Your task to perform on an android device: open app "Adobe Express: Graphic Design" (install if not already installed) and go to login screen Image 0: 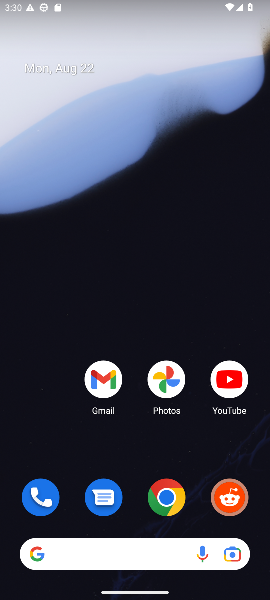
Step 0: drag from (150, 450) to (161, 73)
Your task to perform on an android device: open app "Adobe Express: Graphic Design" (install if not already installed) and go to login screen Image 1: 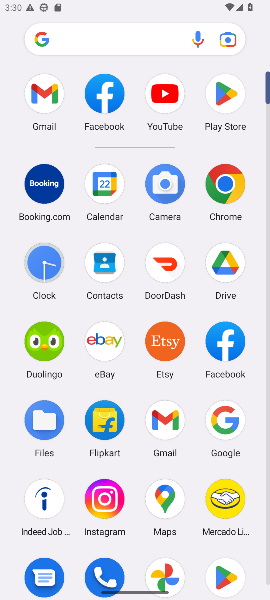
Step 1: click (212, 90)
Your task to perform on an android device: open app "Adobe Express: Graphic Design" (install if not already installed) and go to login screen Image 2: 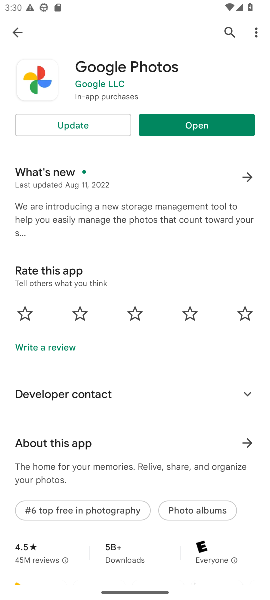
Step 2: click (227, 26)
Your task to perform on an android device: open app "Adobe Express: Graphic Design" (install if not already installed) and go to login screen Image 3: 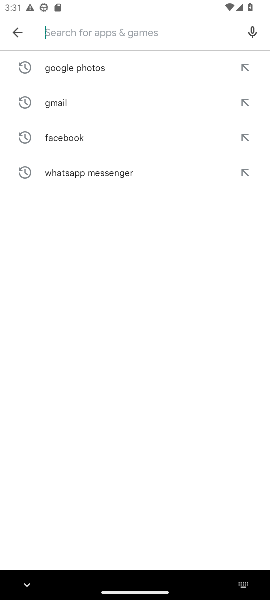
Step 3: type "Adobe Express: Graphic Design"
Your task to perform on an android device: open app "Adobe Express: Graphic Design" (install if not already installed) and go to login screen Image 4: 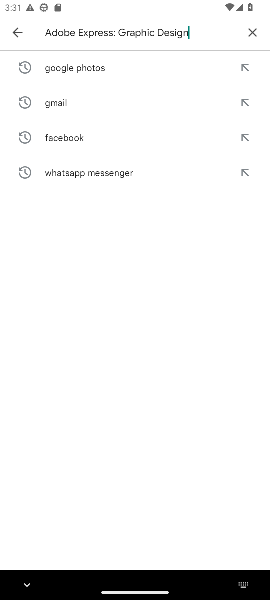
Step 4: type ""
Your task to perform on an android device: open app "Adobe Express: Graphic Design" (install if not already installed) and go to login screen Image 5: 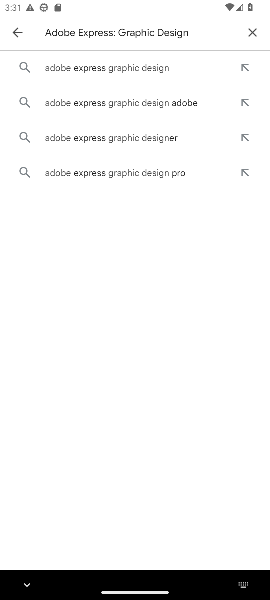
Step 5: click (160, 67)
Your task to perform on an android device: open app "Adobe Express: Graphic Design" (install if not already installed) and go to login screen Image 6: 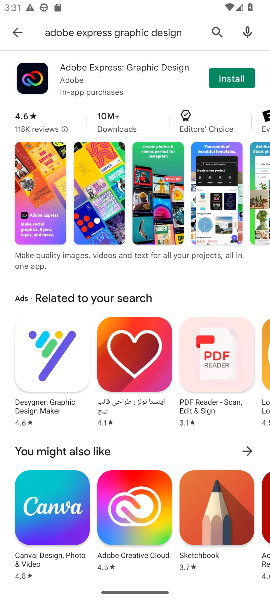
Step 6: click (223, 68)
Your task to perform on an android device: open app "Adobe Express: Graphic Design" (install if not already installed) and go to login screen Image 7: 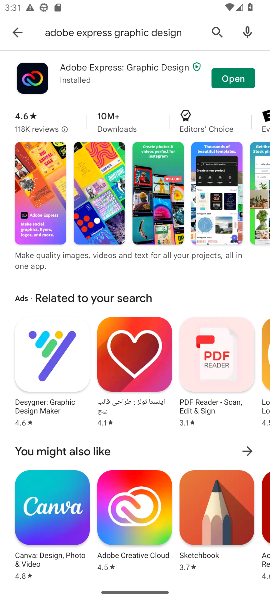
Step 7: click (240, 74)
Your task to perform on an android device: open app "Adobe Express: Graphic Design" (install if not already installed) and go to login screen Image 8: 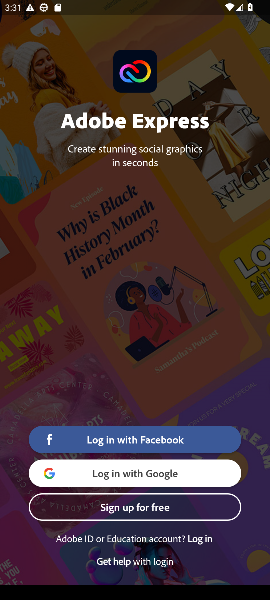
Step 8: task complete